Your task to perform on an android device: Search for the best rated desk chair on Article.com Image 0: 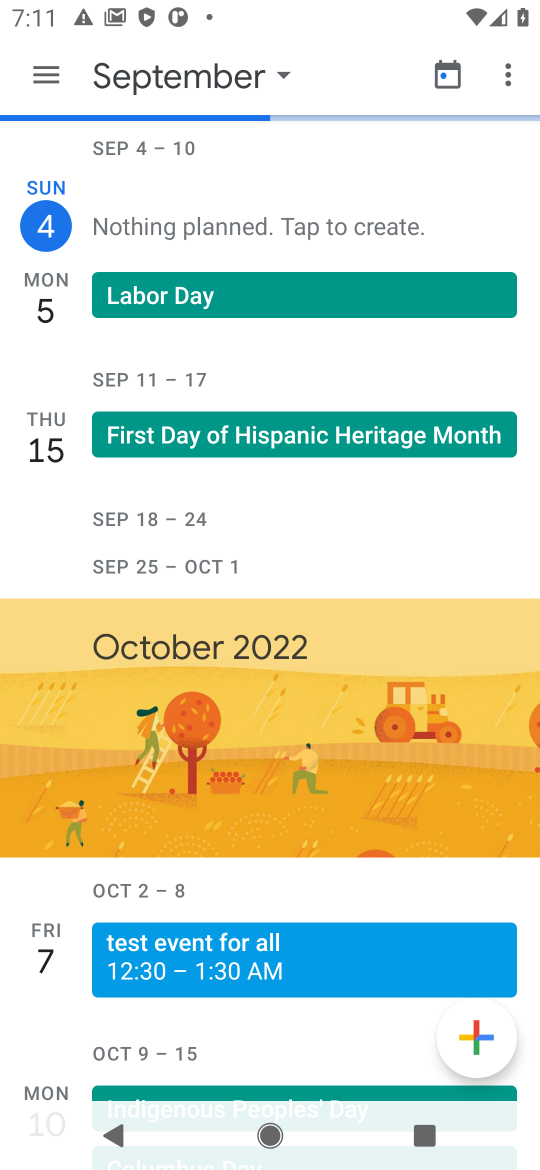
Step 0: press home button
Your task to perform on an android device: Search for the best rated desk chair on Article.com Image 1: 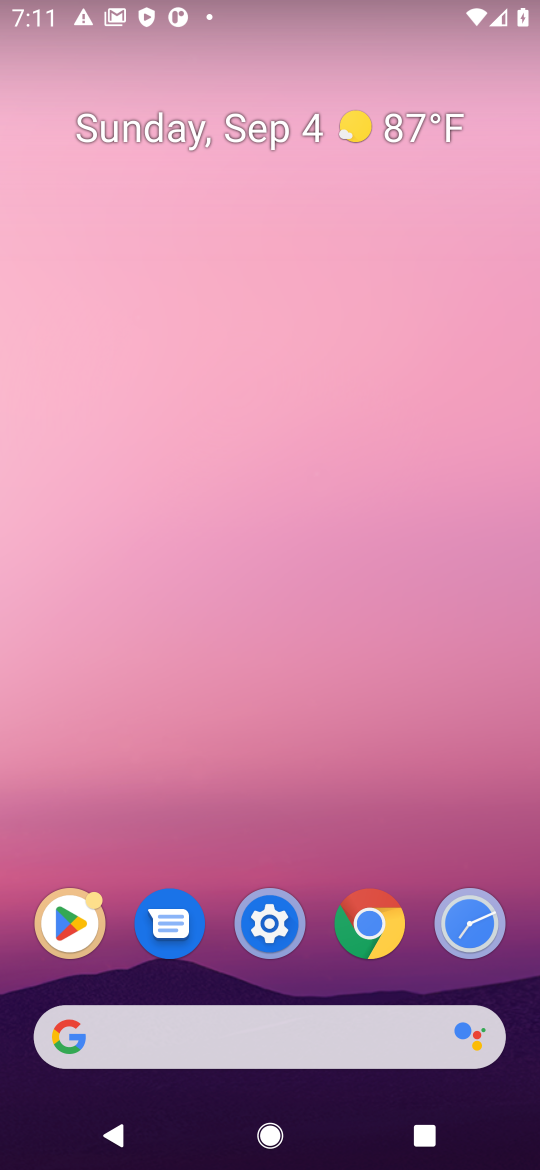
Step 1: click (386, 1027)
Your task to perform on an android device: Search for the best rated desk chair on Article.com Image 2: 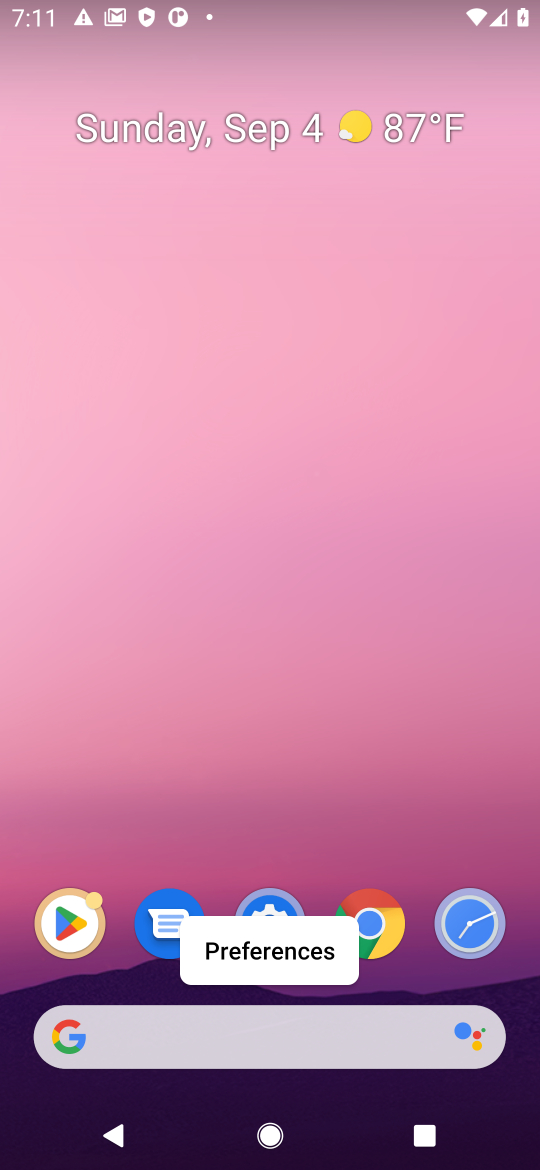
Step 2: click (386, 1027)
Your task to perform on an android device: Search for the best rated desk chair on Article.com Image 3: 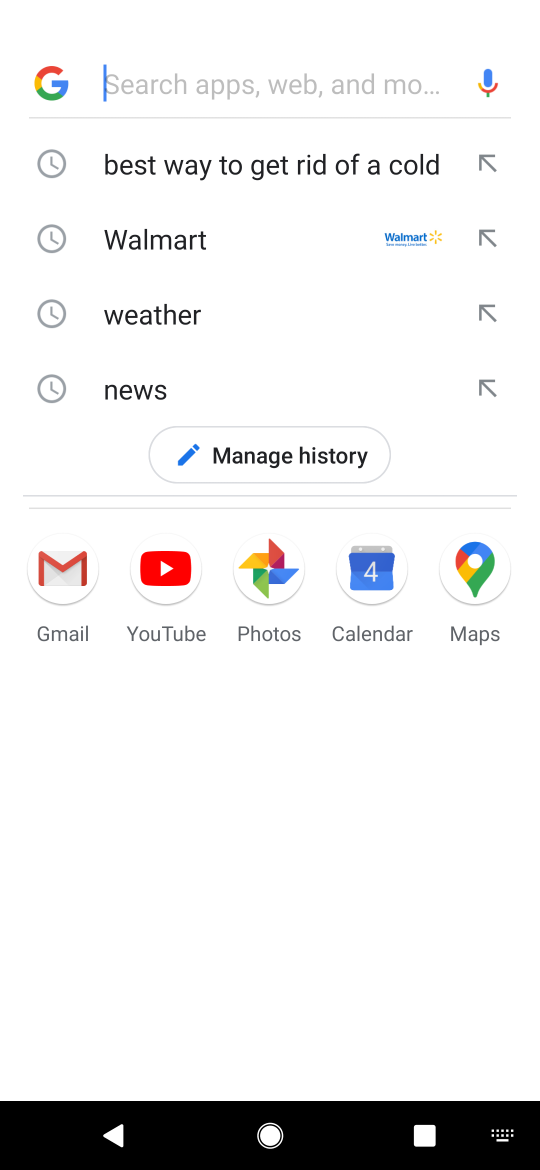
Step 3: press enter
Your task to perform on an android device: Search for the best rated desk chair on Article.com Image 4: 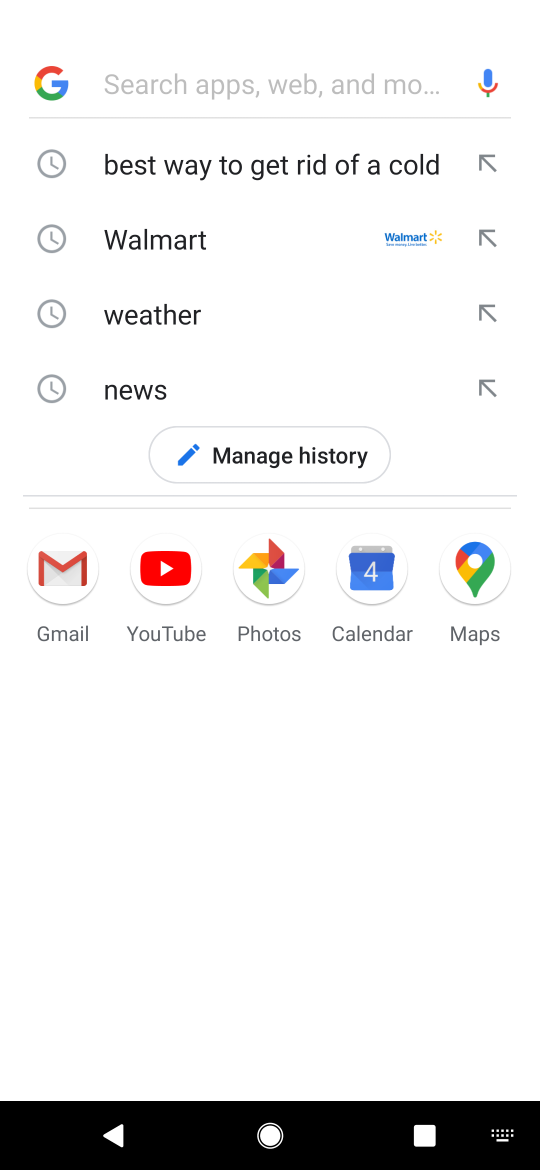
Step 4: type "article.com"
Your task to perform on an android device: Search for the best rated desk chair on Article.com Image 5: 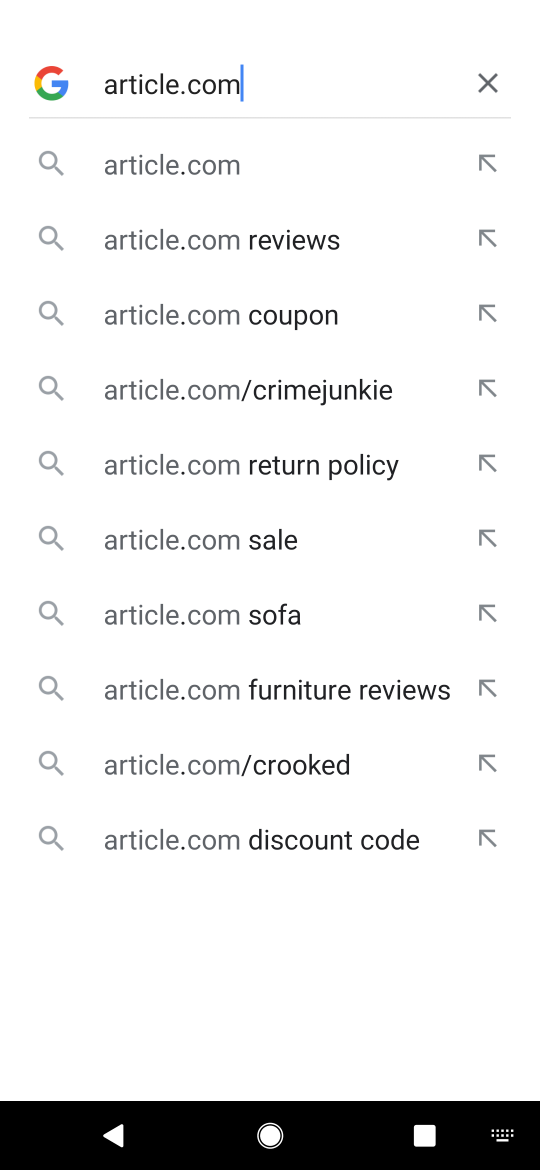
Step 5: click (202, 158)
Your task to perform on an android device: Search for the best rated desk chair on Article.com Image 6: 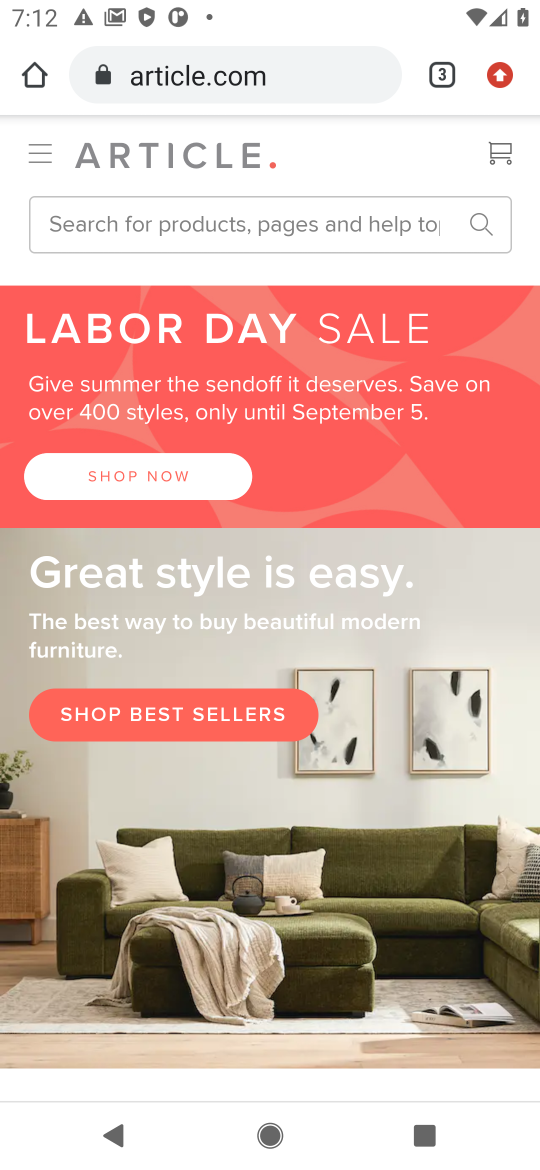
Step 6: click (221, 226)
Your task to perform on an android device: Search for the best rated desk chair on Article.com Image 7: 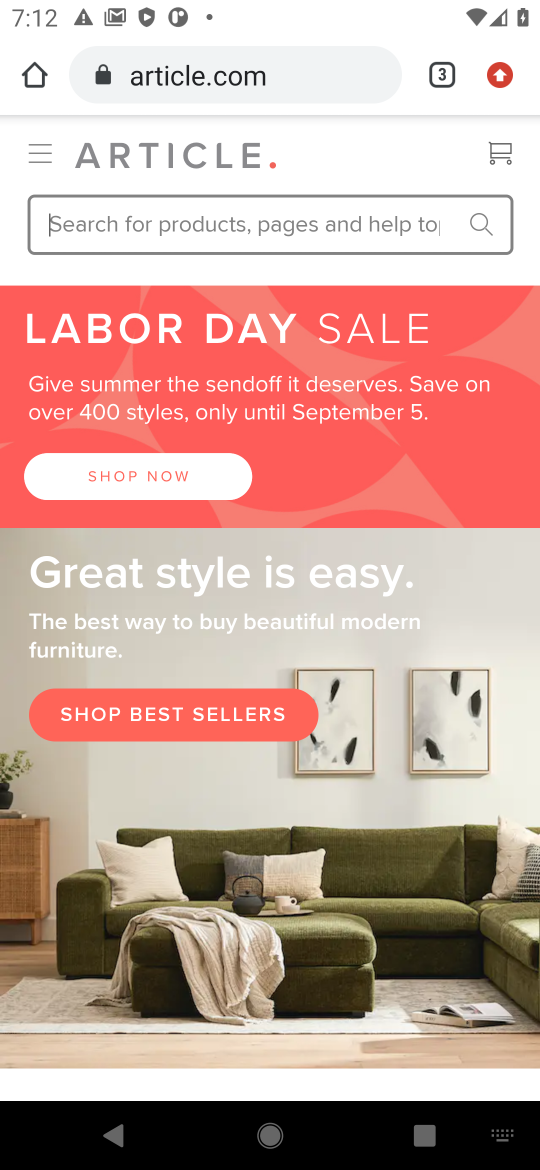
Step 7: press enter
Your task to perform on an android device: Search for the best rated desk chair on Article.com Image 8: 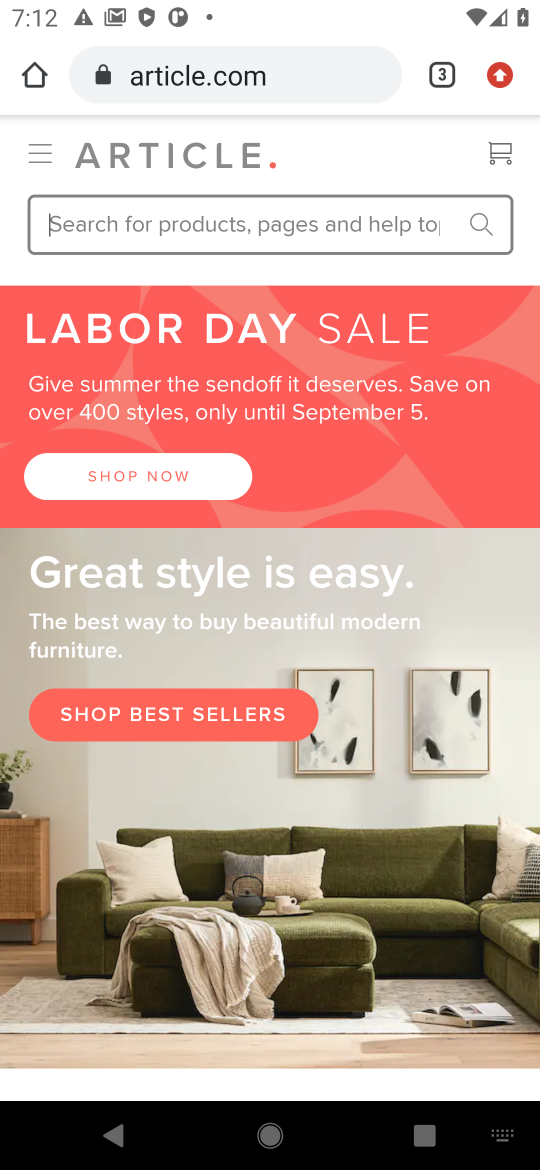
Step 8: type "desk chair"
Your task to perform on an android device: Search for the best rated desk chair on Article.com Image 9: 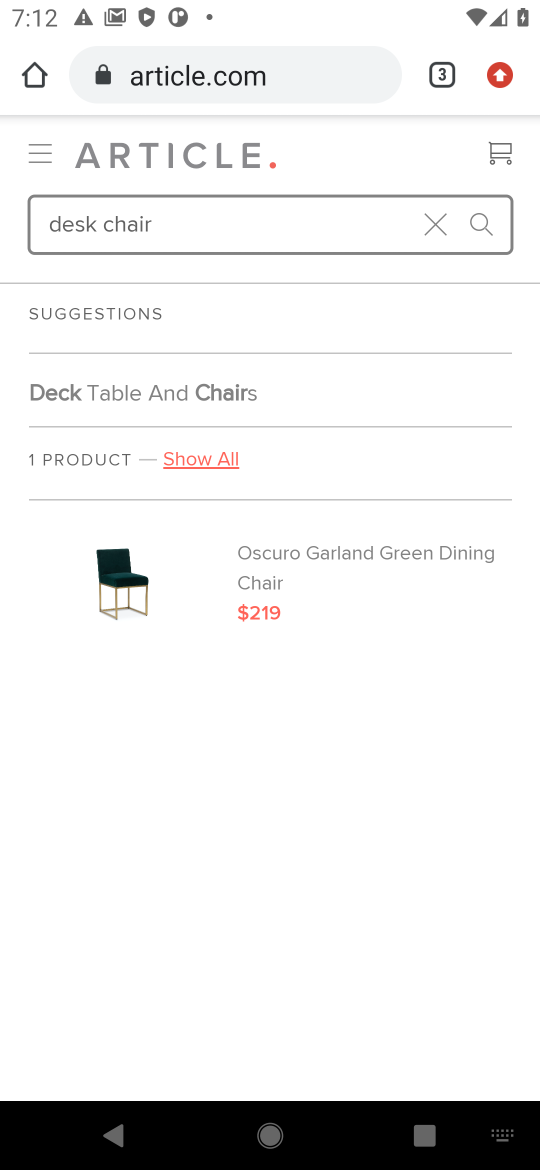
Step 9: click (487, 223)
Your task to perform on an android device: Search for the best rated desk chair on Article.com Image 10: 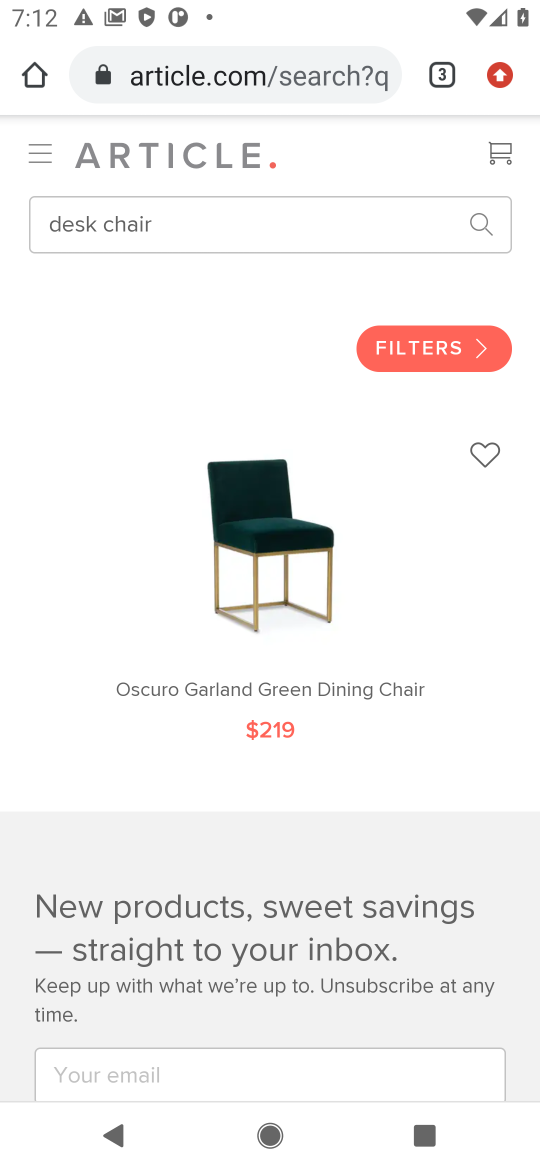
Step 10: task complete